Your task to perform on an android device: turn off picture-in-picture Image 0: 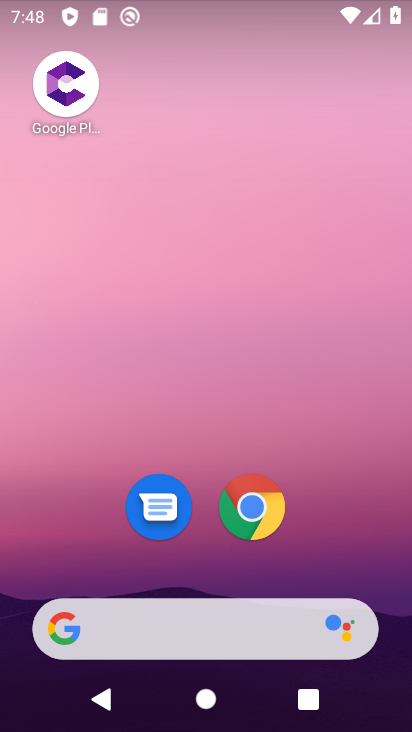
Step 0: click (230, 497)
Your task to perform on an android device: turn off picture-in-picture Image 1: 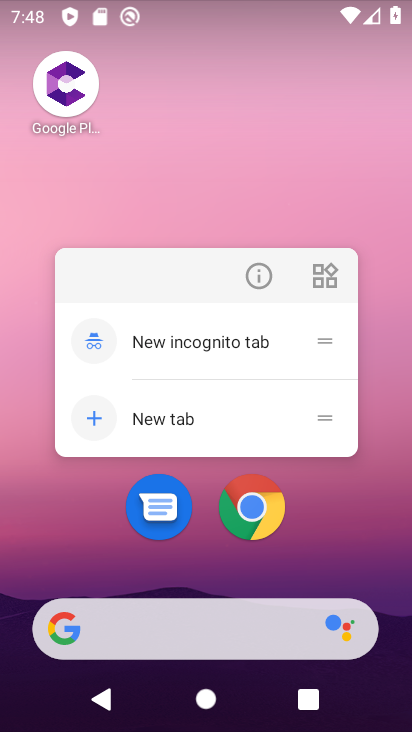
Step 1: click (259, 269)
Your task to perform on an android device: turn off picture-in-picture Image 2: 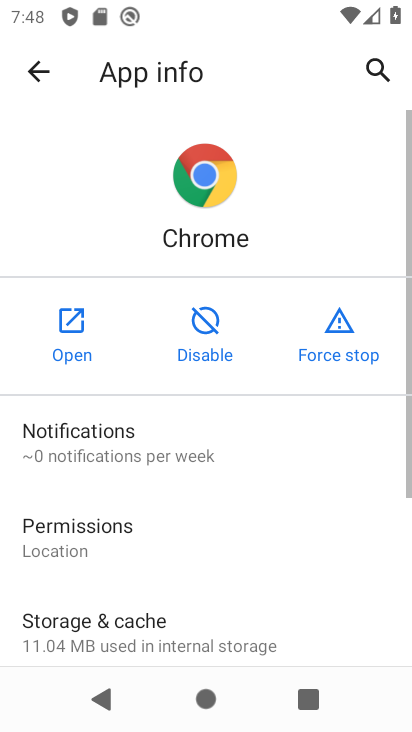
Step 2: drag from (284, 629) to (300, 282)
Your task to perform on an android device: turn off picture-in-picture Image 3: 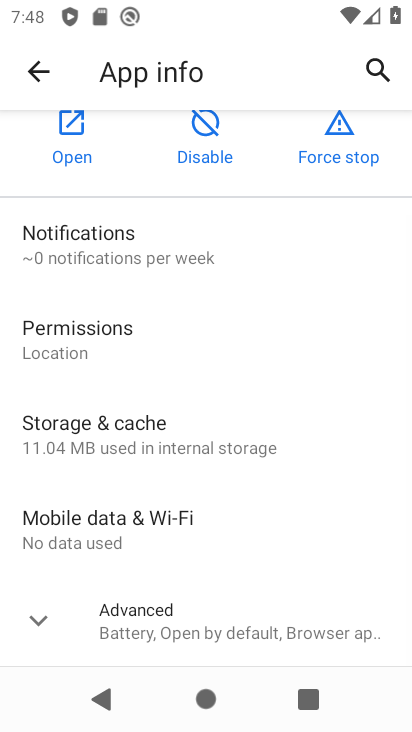
Step 3: click (193, 635)
Your task to perform on an android device: turn off picture-in-picture Image 4: 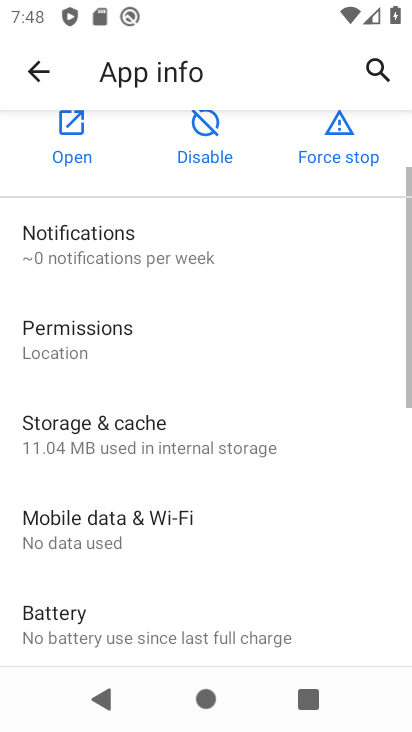
Step 4: drag from (193, 635) to (266, 392)
Your task to perform on an android device: turn off picture-in-picture Image 5: 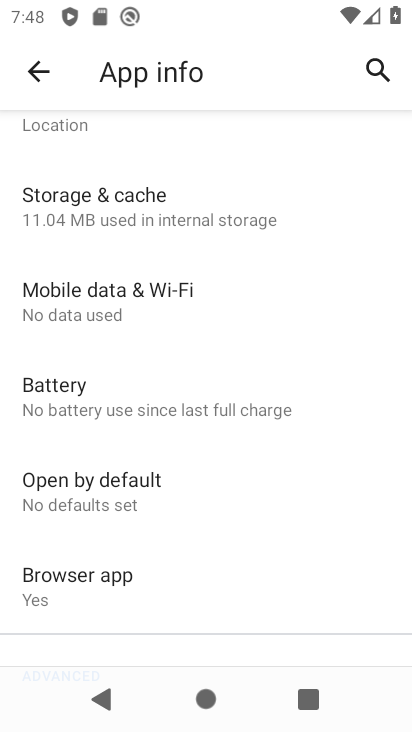
Step 5: drag from (199, 595) to (245, 421)
Your task to perform on an android device: turn off picture-in-picture Image 6: 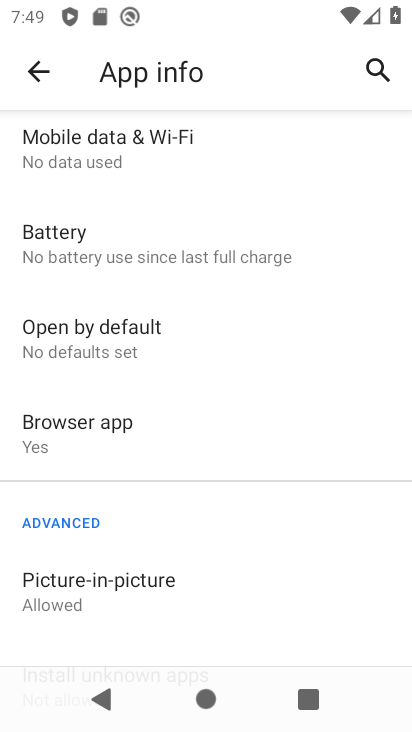
Step 6: click (174, 583)
Your task to perform on an android device: turn off picture-in-picture Image 7: 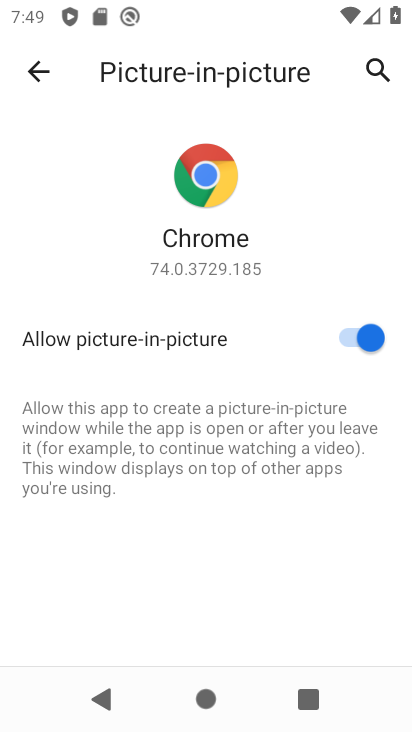
Step 7: click (343, 348)
Your task to perform on an android device: turn off picture-in-picture Image 8: 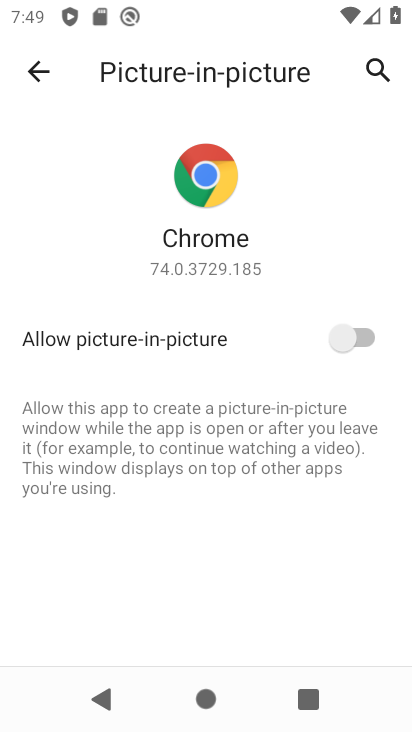
Step 8: task complete